Your task to perform on an android device: What's the weather going to be this weekend? Image 0: 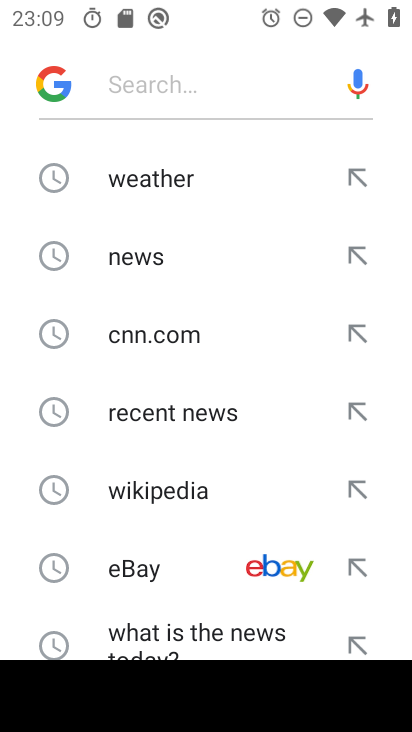
Step 0: press home button
Your task to perform on an android device: What's the weather going to be this weekend? Image 1: 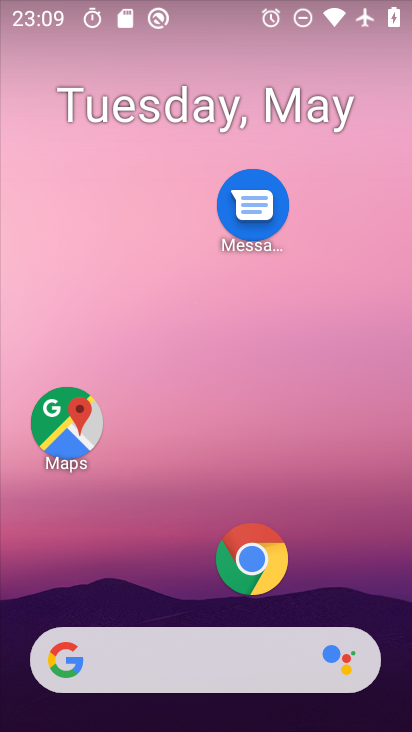
Step 1: drag from (189, 608) to (196, 130)
Your task to perform on an android device: What's the weather going to be this weekend? Image 2: 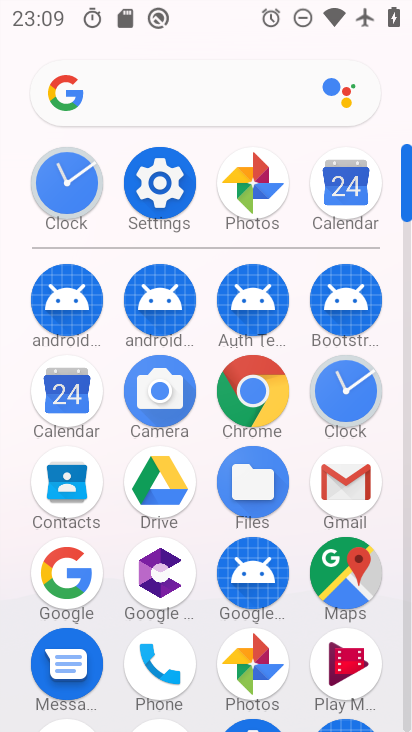
Step 2: click (341, 209)
Your task to perform on an android device: What's the weather going to be this weekend? Image 3: 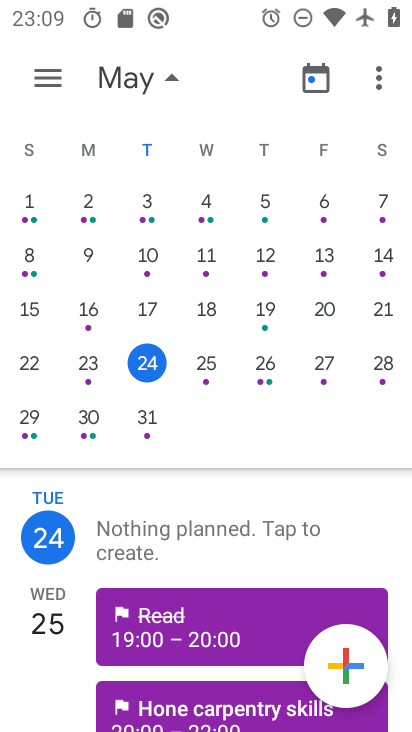
Step 3: click (378, 366)
Your task to perform on an android device: What's the weather going to be this weekend? Image 4: 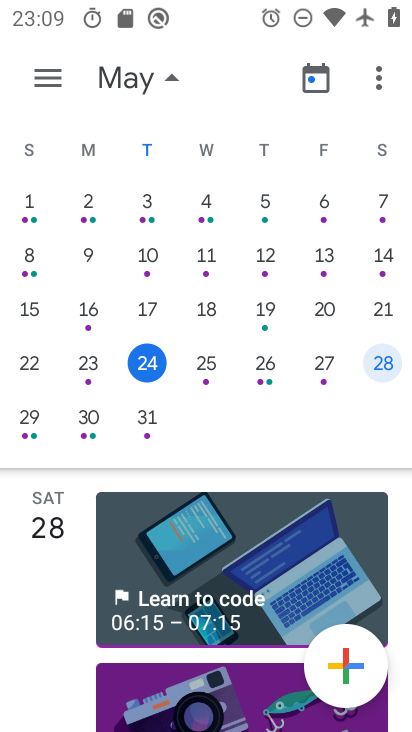
Step 4: task complete